Your task to perform on an android device: Search for seafood restaurants on Google Maps Image 0: 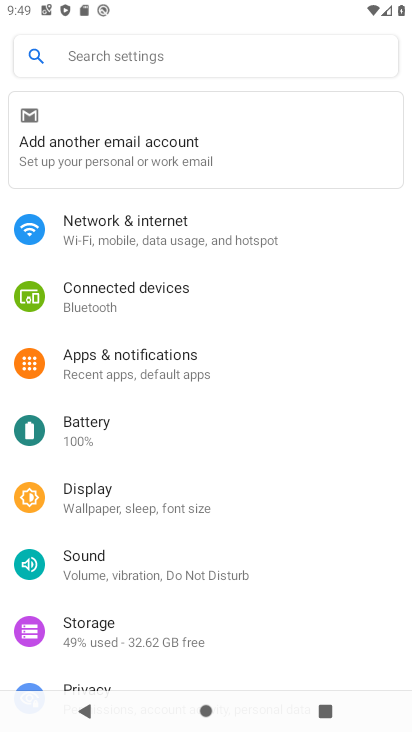
Step 0: press back button
Your task to perform on an android device: Search for seafood restaurants on Google Maps Image 1: 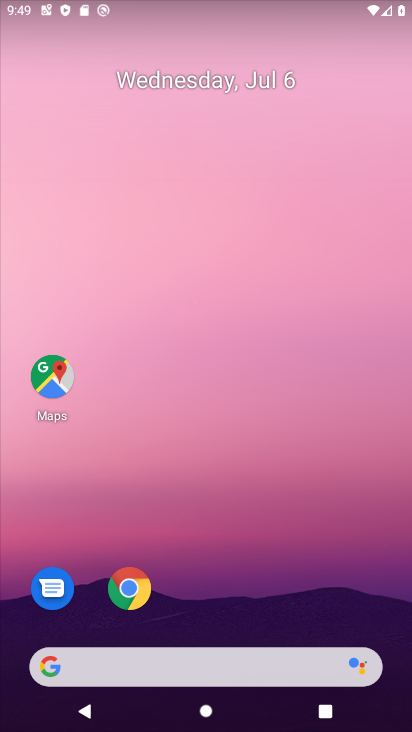
Step 1: drag from (287, 598) to (297, 64)
Your task to perform on an android device: Search for seafood restaurants on Google Maps Image 2: 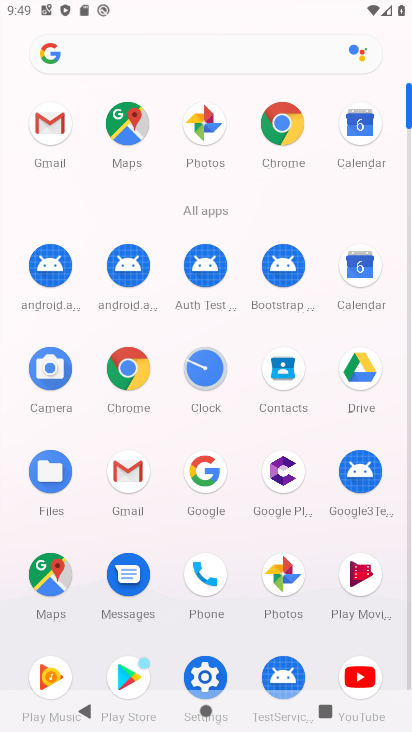
Step 2: click (116, 124)
Your task to perform on an android device: Search for seafood restaurants on Google Maps Image 3: 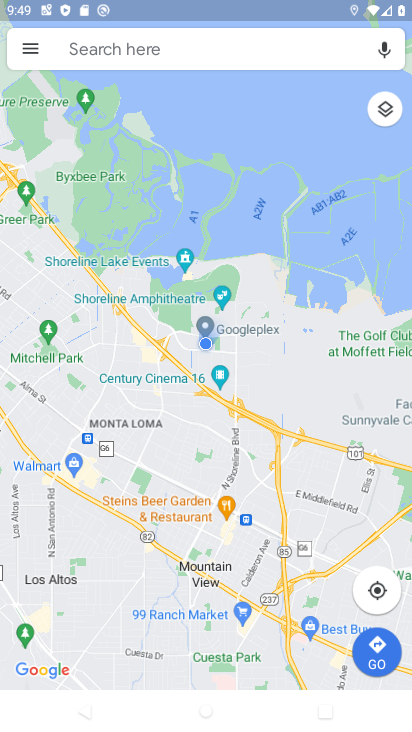
Step 3: click (130, 51)
Your task to perform on an android device: Search for seafood restaurants on Google Maps Image 4: 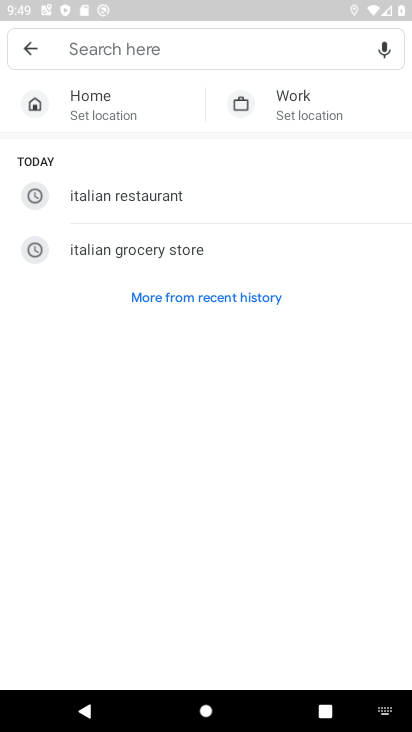
Step 4: click (146, 40)
Your task to perform on an android device: Search for seafood restaurants on Google Maps Image 5: 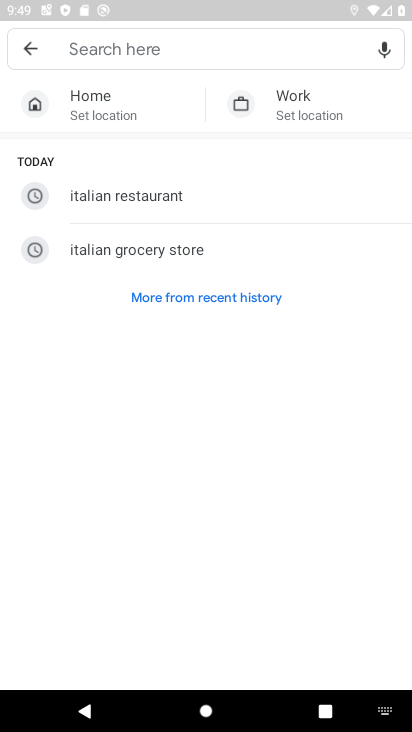
Step 5: type "seafood restaurants"
Your task to perform on an android device: Search for seafood restaurants on Google Maps Image 6: 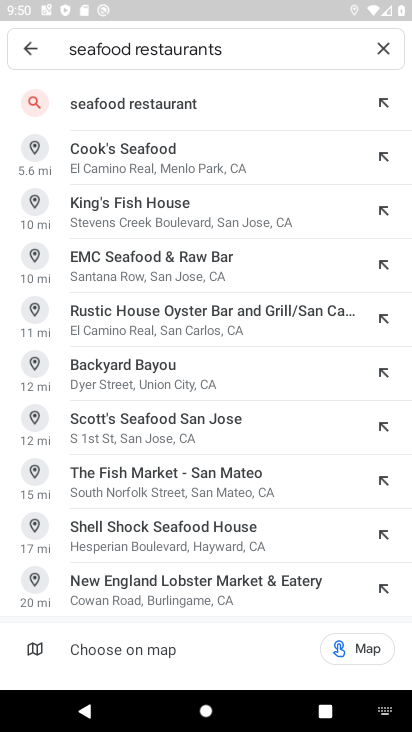
Step 6: click (132, 88)
Your task to perform on an android device: Search for seafood restaurants on Google Maps Image 7: 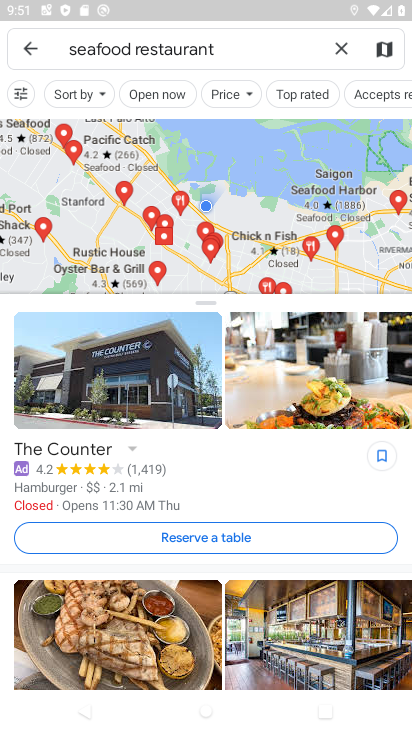
Step 7: task complete